Your task to perform on an android device: Open sound settings Image 0: 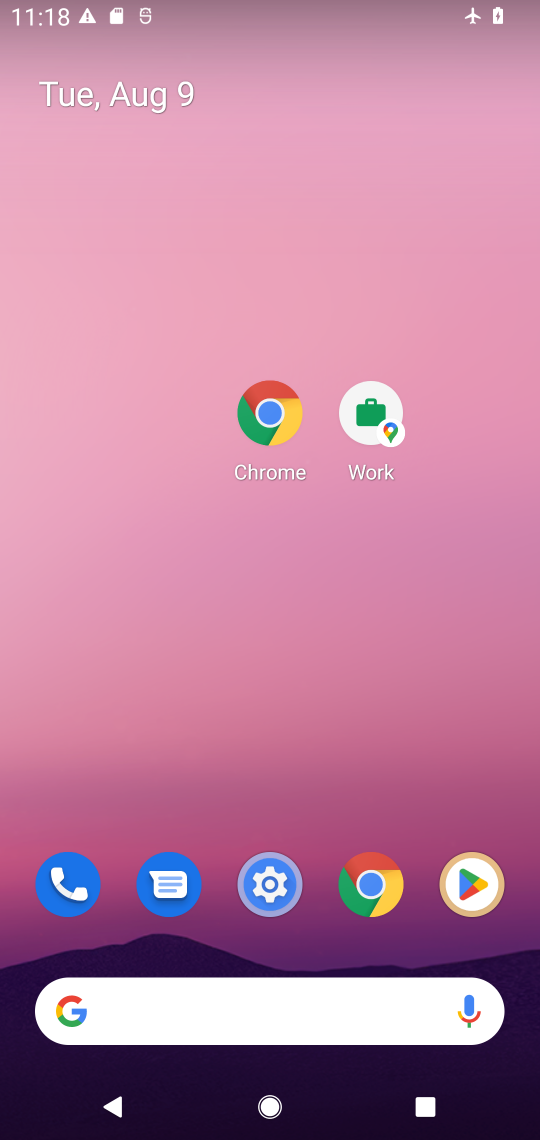
Step 0: drag from (321, 1002) to (207, 353)
Your task to perform on an android device: Open sound settings Image 1: 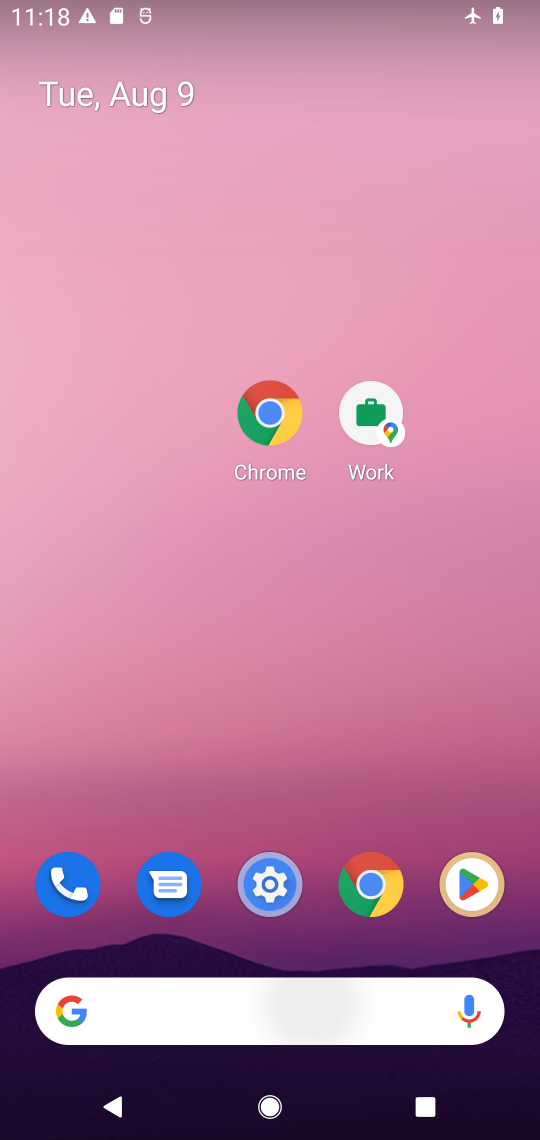
Step 1: drag from (402, 586) to (400, 486)
Your task to perform on an android device: Open sound settings Image 2: 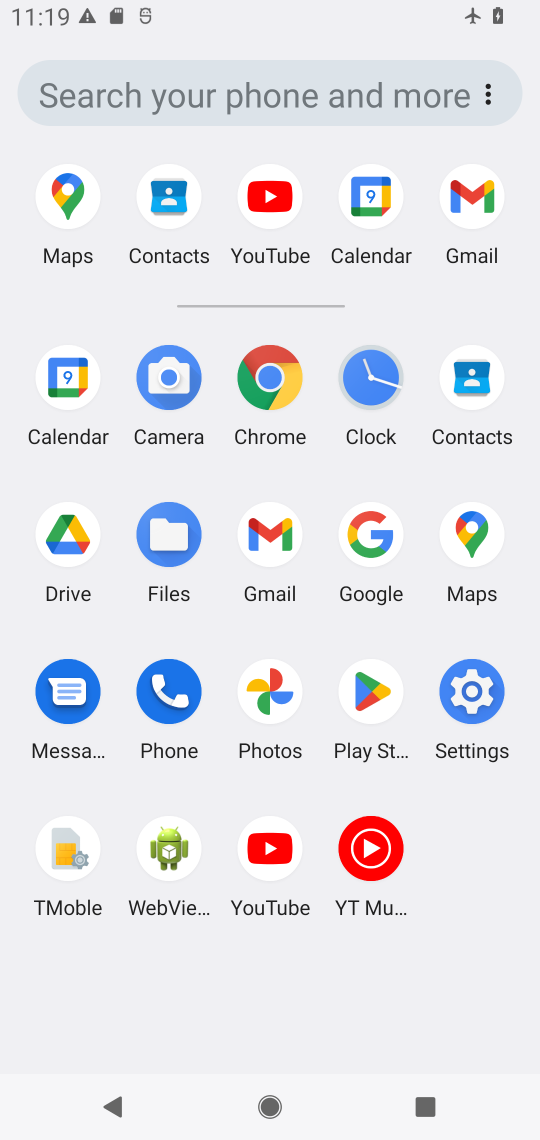
Step 2: click (469, 684)
Your task to perform on an android device: Open sound settings Image 3: 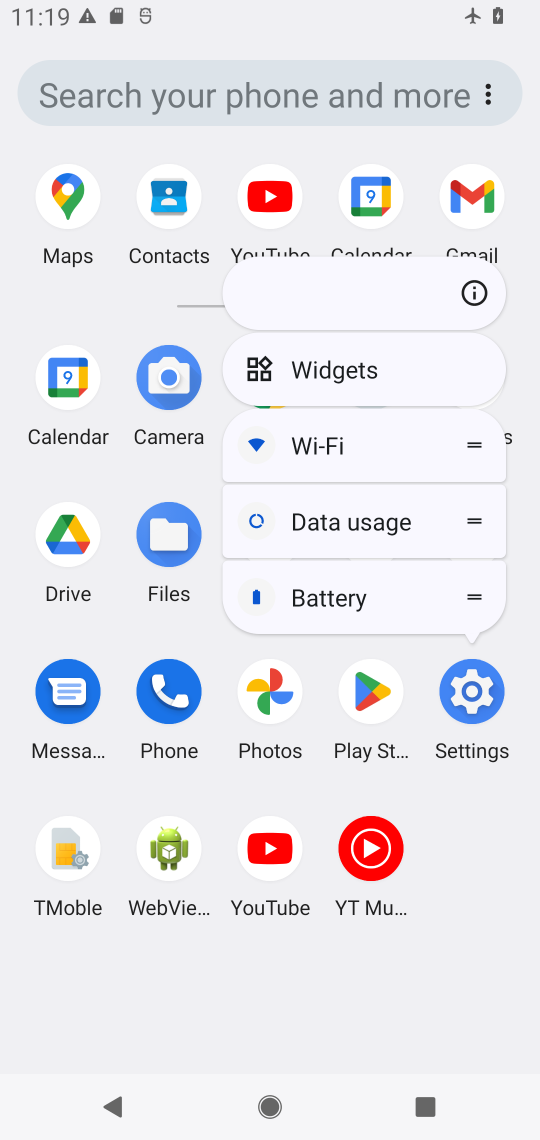
Step 3: click (483, 688)
Your task to perform on an android device: Open sound settings Image 4: 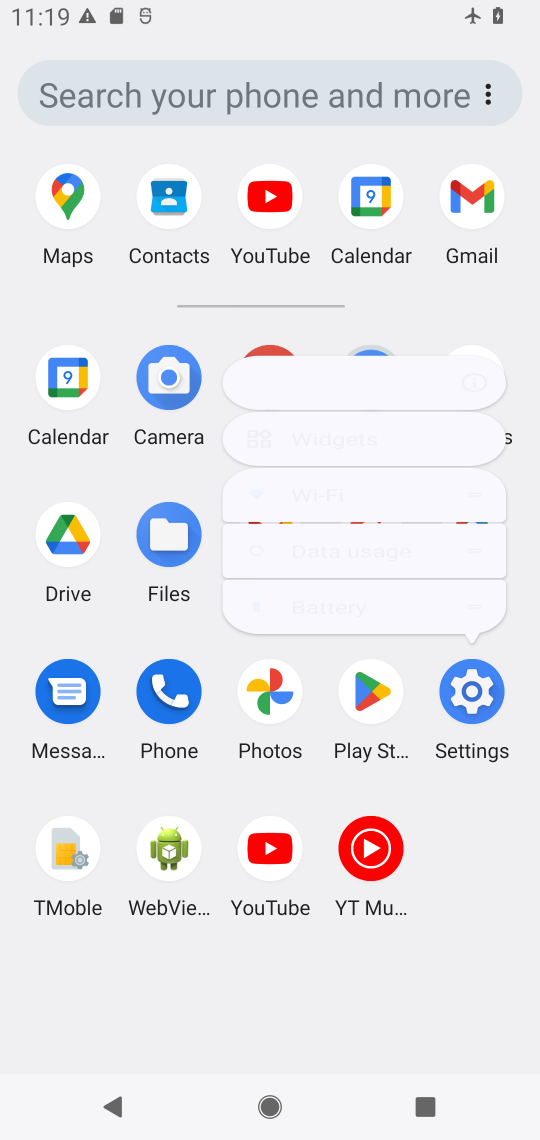
Step 4: click (488, 695)
Your task to perform on an android device: Open sound settings Image 5: 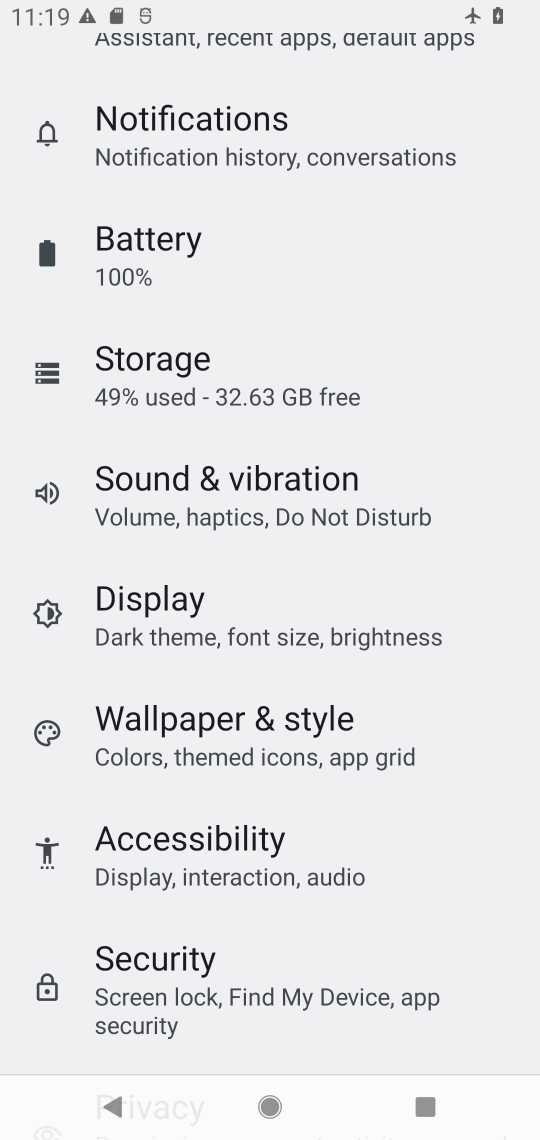
Step 5: click (197, 503)
Your task to perform on an android device: Open sound settings Image 6: 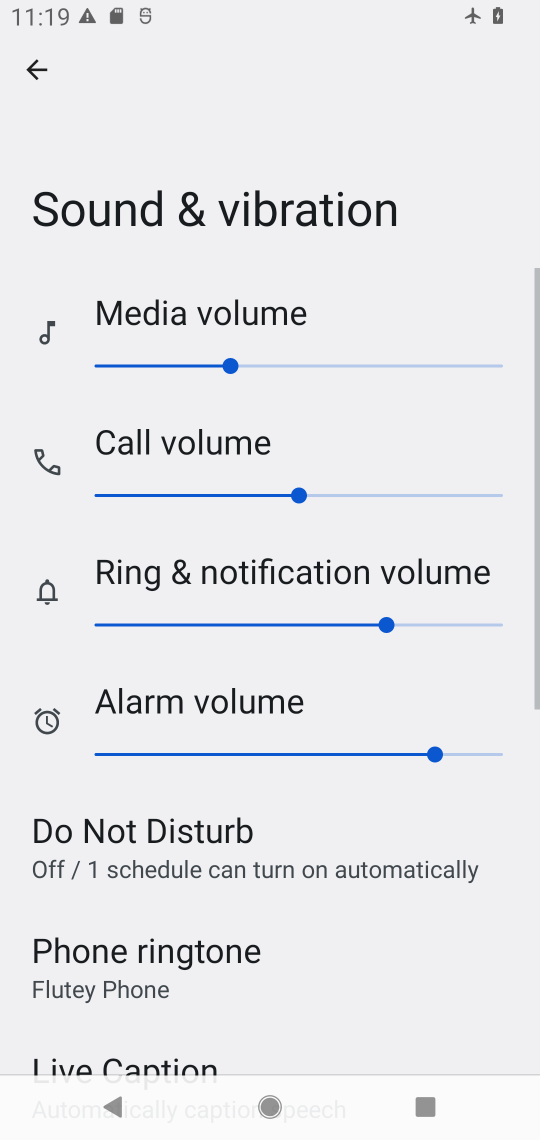
Step 6: drag from (200, 844) to (194, 451)
Your task to perform on an android device: Open sound settings Image 7: 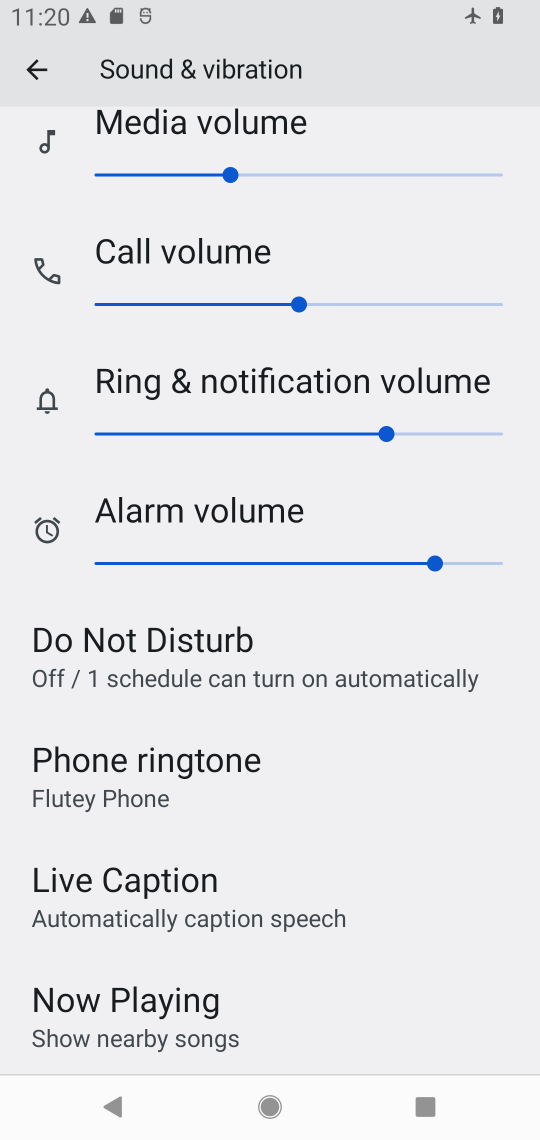
Step 7: drag from (256, 822) to (254, 443)
Your task to perform on an android device: Open sound settings Image 8: 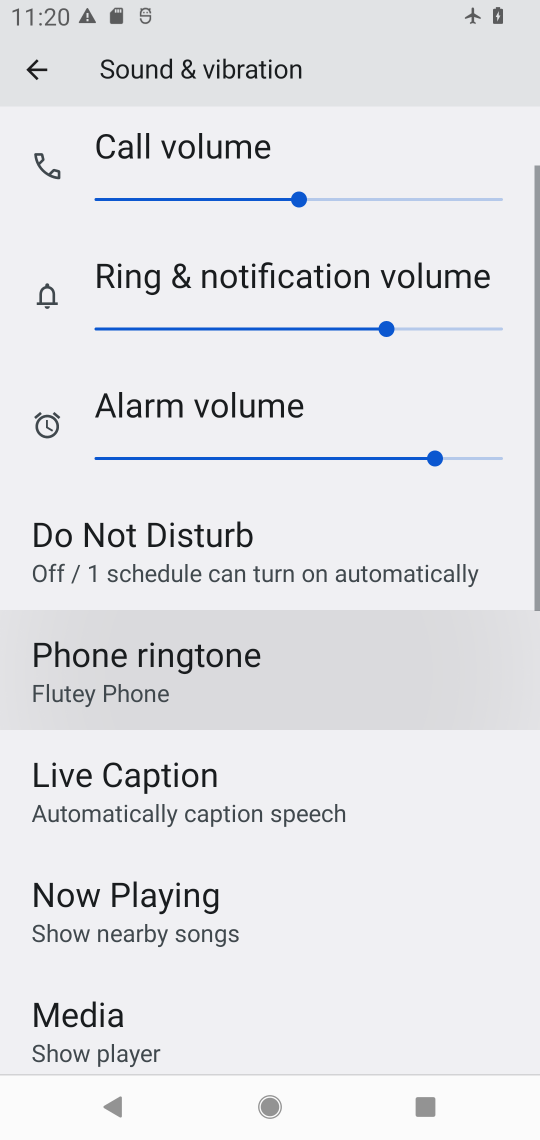
Step 8: drag from (229, 633) to (201, 428)
Your task to perform on an android device: Open sound settings Image 9: 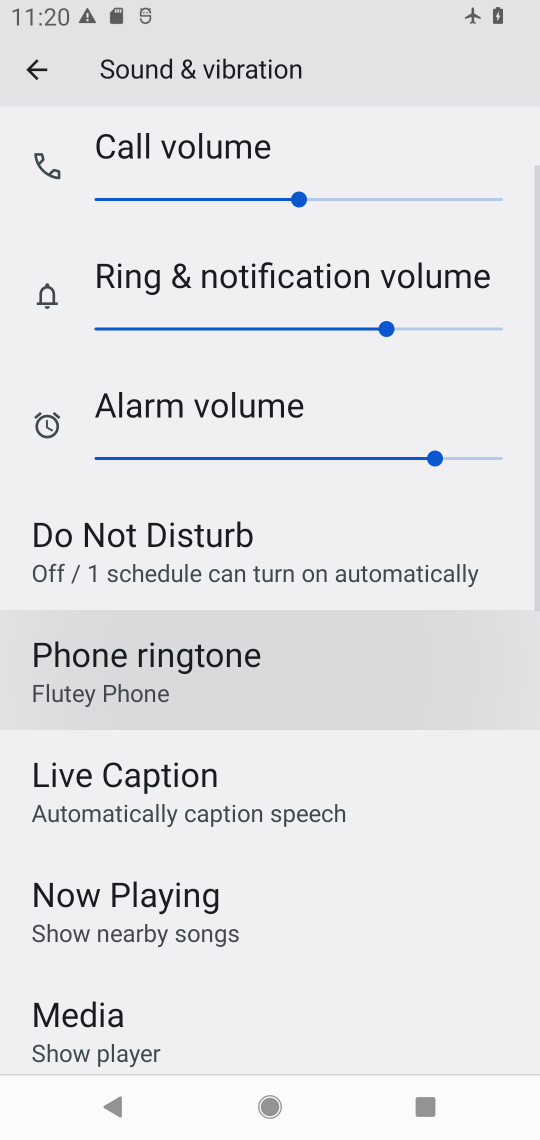
Step 9: click (192, 602)
Your task to perform on an android device: Open sound settings Image 10: 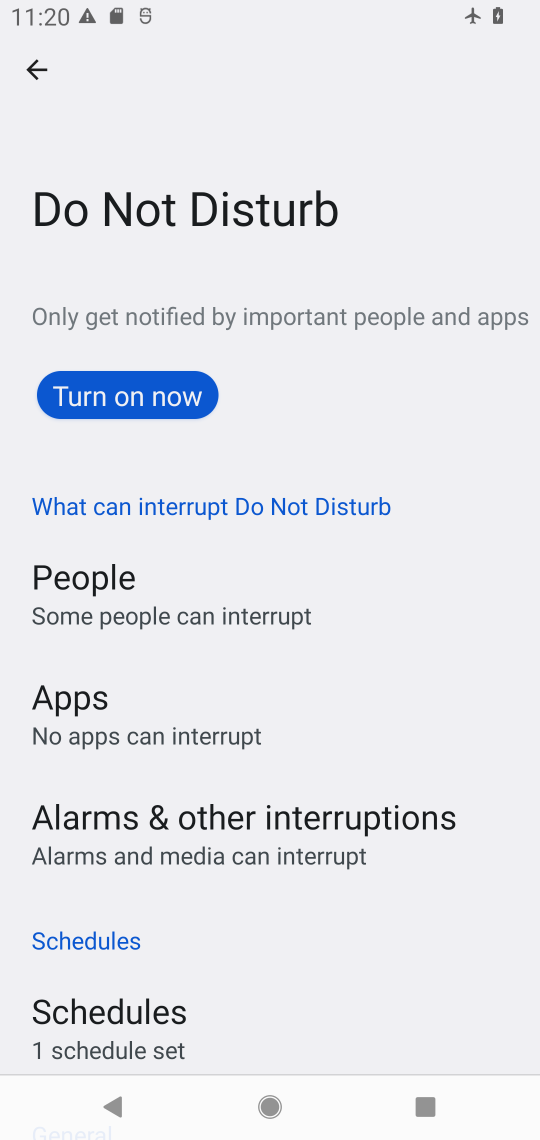
Step 10: task complete